Your task to perform on an android device: toggle javascript in the chrome app Image 0: 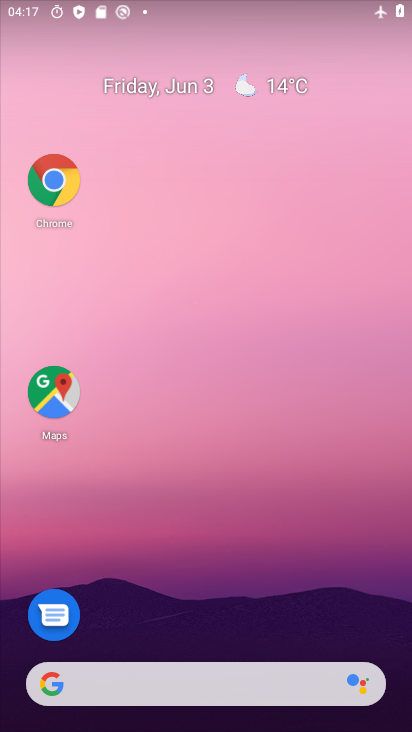
Step 0: click (58, 192)
Your task to perform on an android device: toggle javascript in the chrome app Image 1: 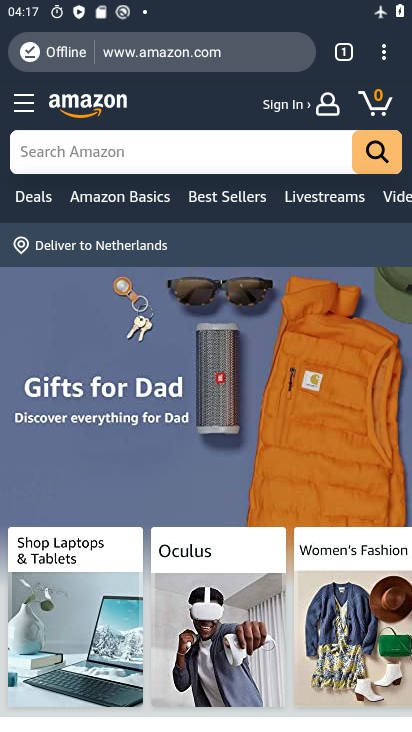
Step 1: click (386, 54)
Your task to perform on an android device: toggle javascript in the chrome app Image 2: 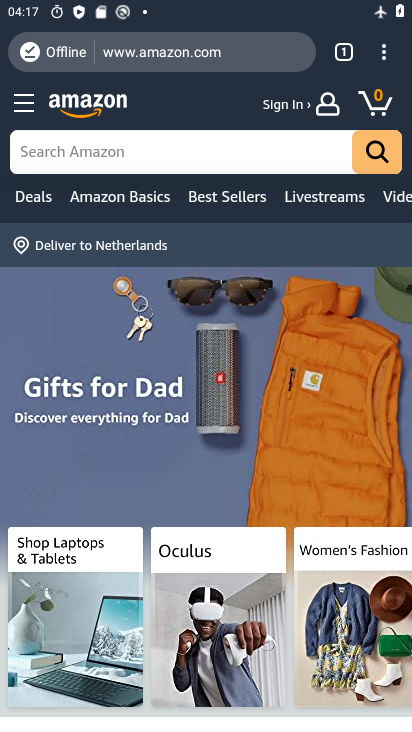
Step 2: click (390, 50)
Your task to perform on an android device: toggle javascript in the chrome app Image 3: 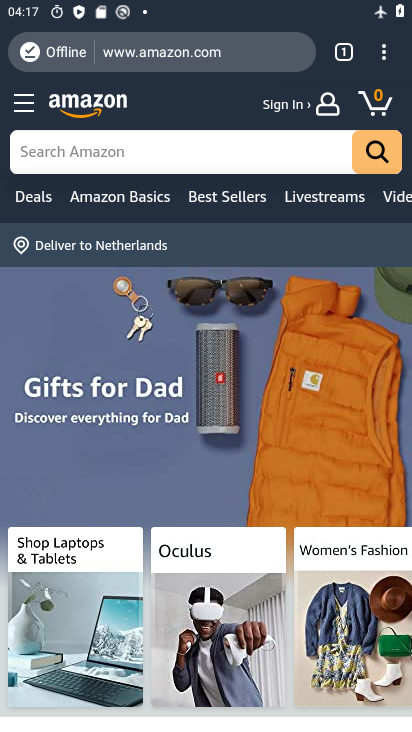
Step 3: click (393, 58)
Your task to perform on an android device: toggle javascript in the chrome app Image 4: 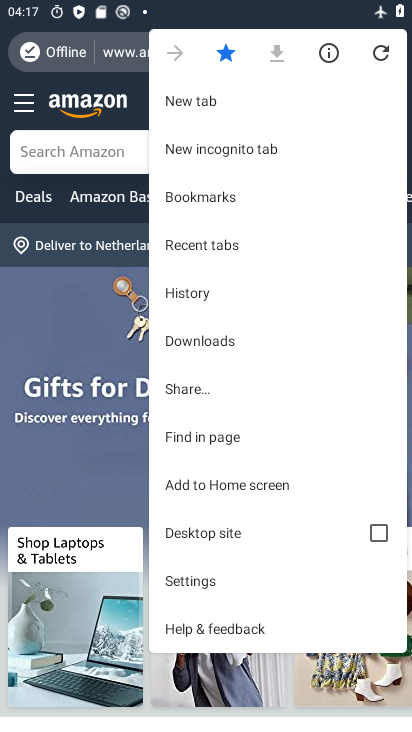
Step 4: click (193, 586)
Your task to perform on an android device: toggle javascript in the chrome app Image 5: 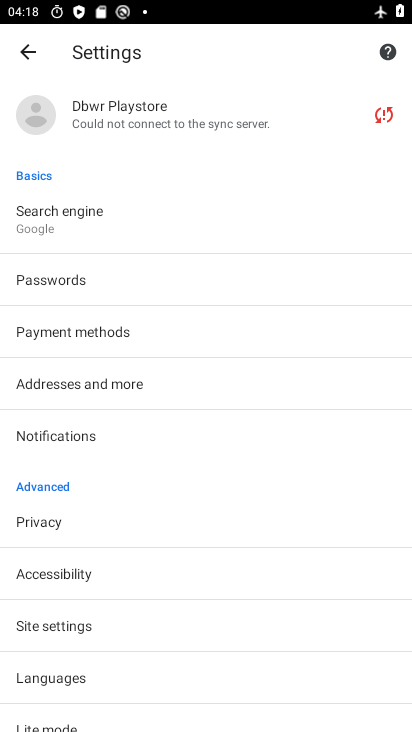
Step 5: click (74, 635)
Your task to perform on an android device: toggle javascript in the chrome app Image 6: 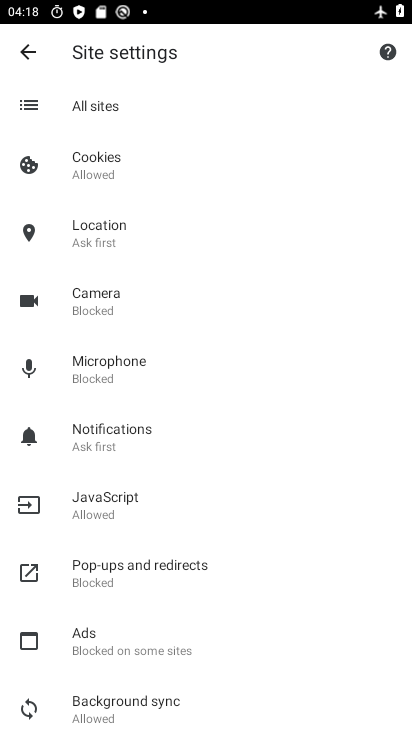
Step 6: click (113, 507)
Your task to perform on an android device: toggle javascript in the chrome app Image 7: 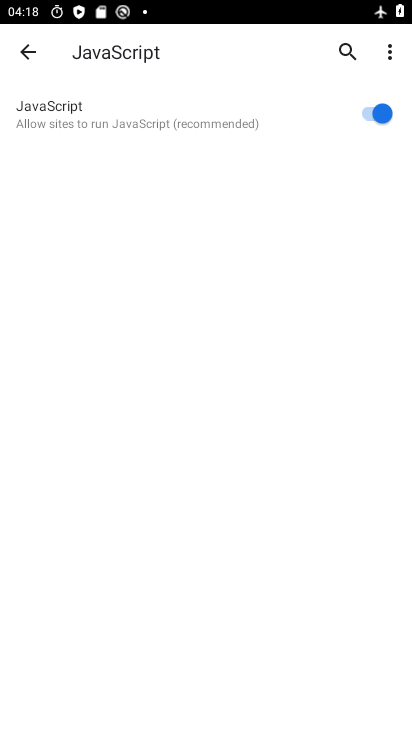
Step 7: click (388, 116)
Your task to perform on an android device: toggle javascript in the chrome app Image 8: 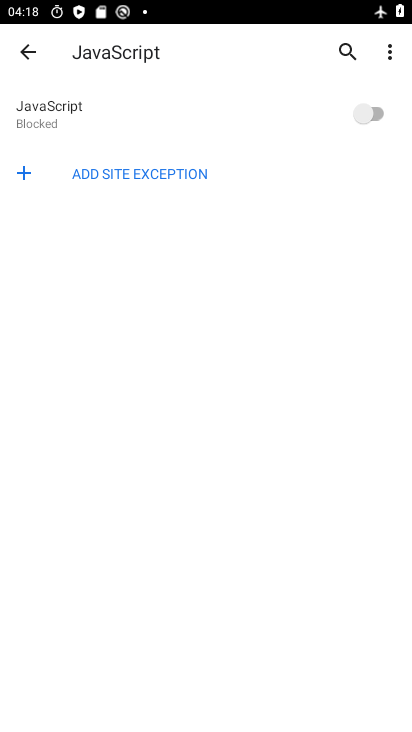
Step 8: task complete